Your task to perform on an android device: Clear the shopping cart on newegg. Search for asus rog on newegg, select the first entry, and add it to the cart. Image 0: 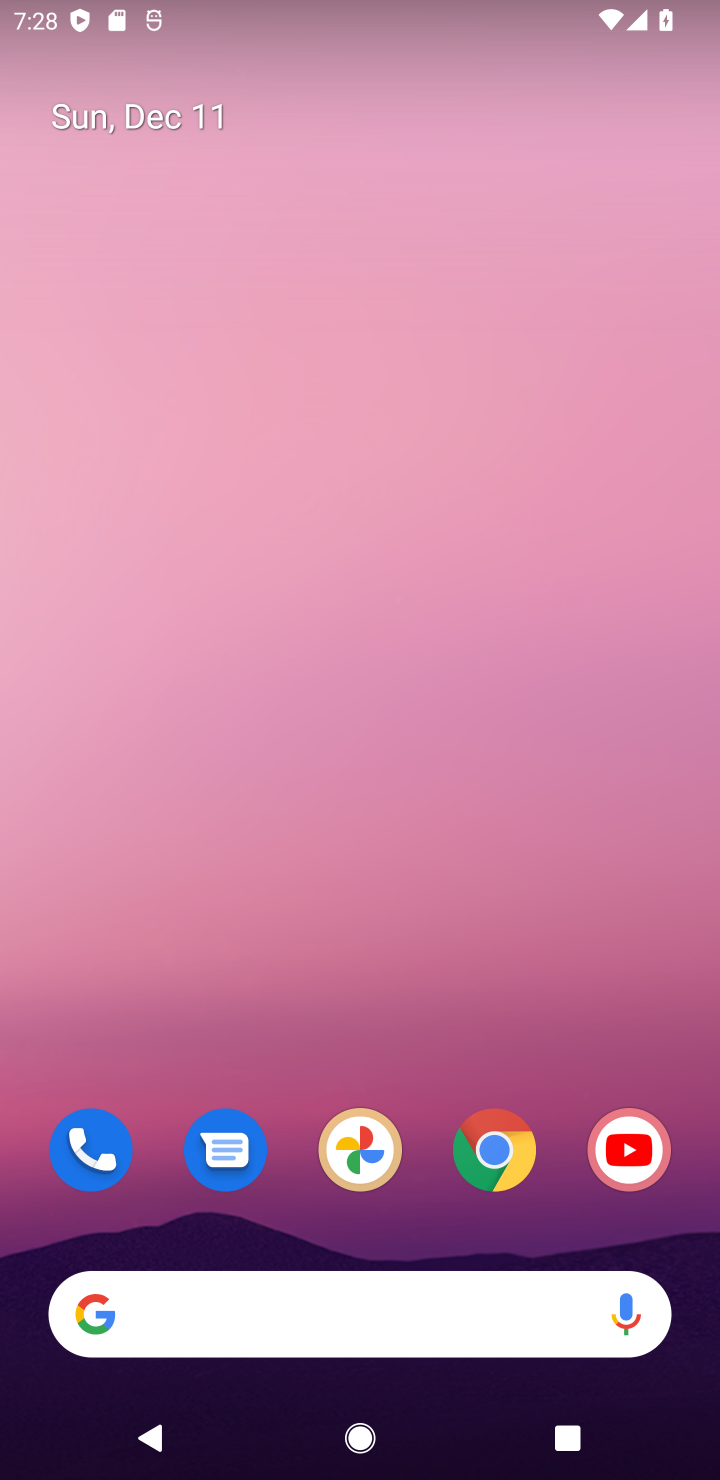
Step 0: click (492, 1146)
Your task to perform on an android device: Clear the shopping cart on newegg. Search for asus rog on newegg, select the first entry, and add it to the cart. Image 1: 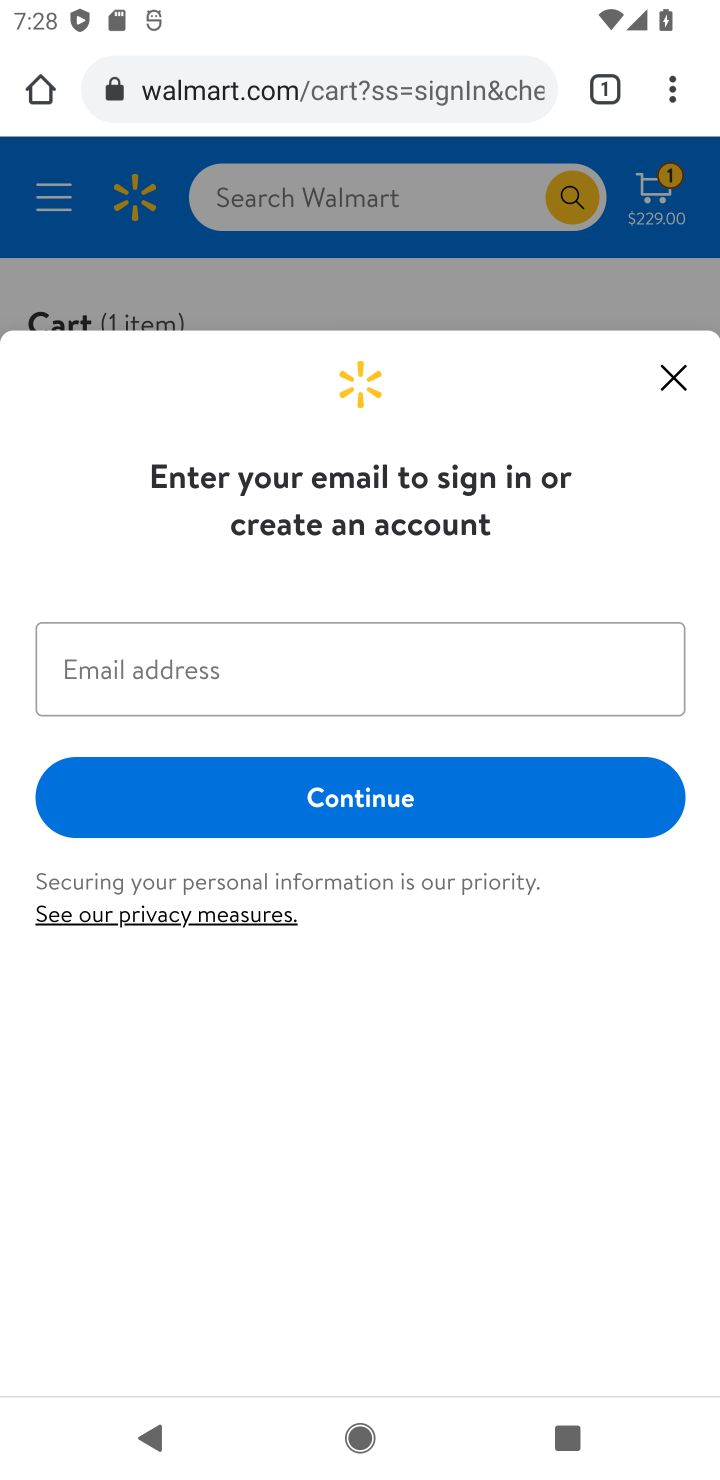
Step 1: click (427, 91)
Your task to perform on an android device: Clear the shopping cart on newegg. Search for asus rog on newegg, select the first entry, and add it to the cart. Image 2: 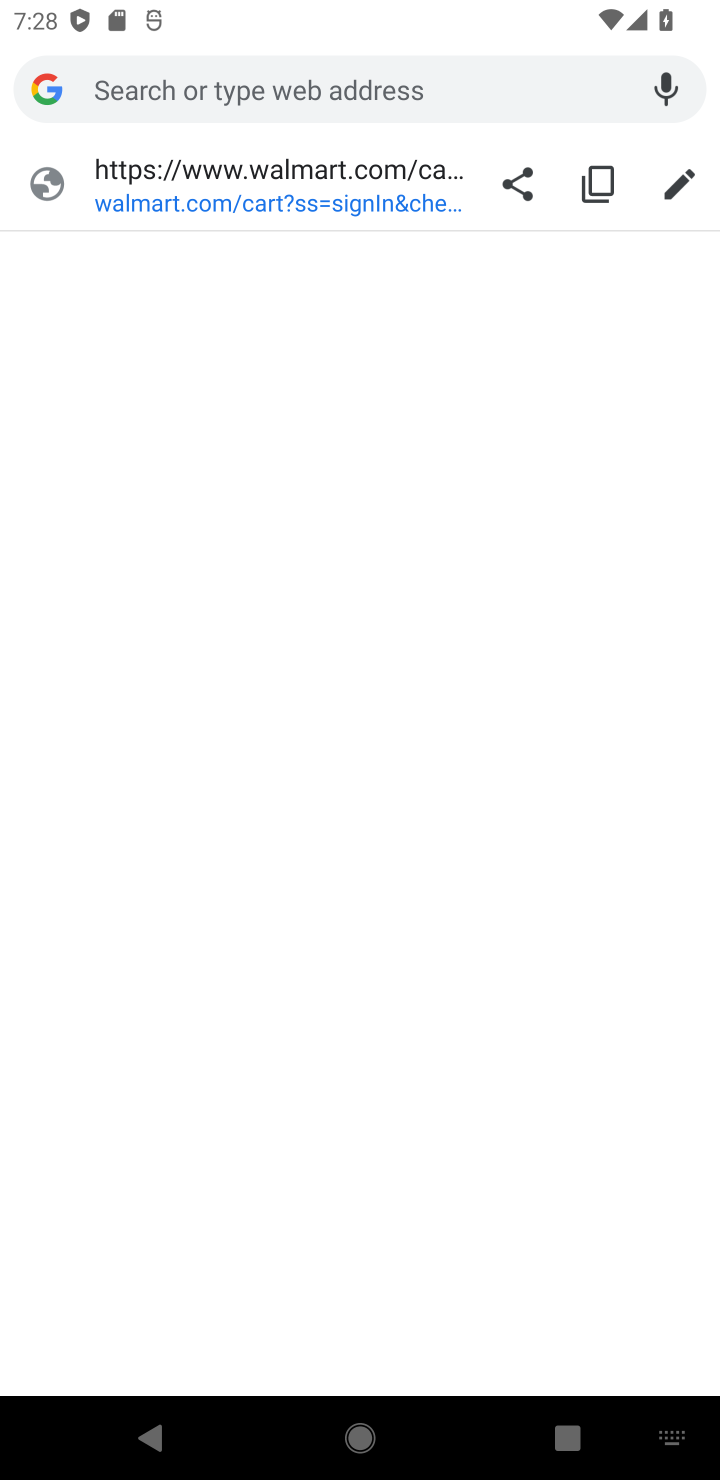
Step 2: type "newegg"
Your task to perform on an android device: Clear the shopping cart on newegg. Search for asus rog on newegg, select the first entry, and add it to the cart. Image 3: 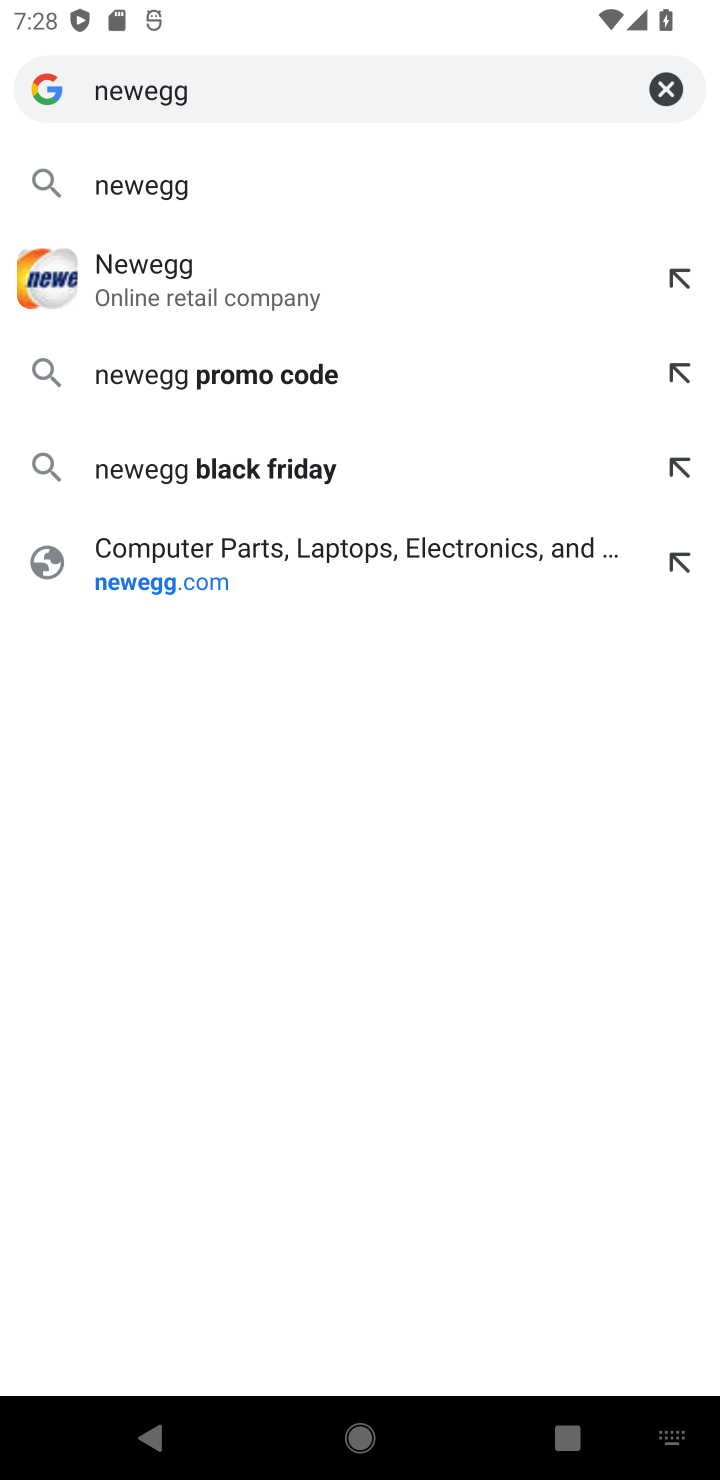
Step 3: click (162, 193)
Your task to perform on an android device: Clear the shopping cart on newegg. Search for asus rog on newegg, select the first entry, and add it to the cart. Image 4: 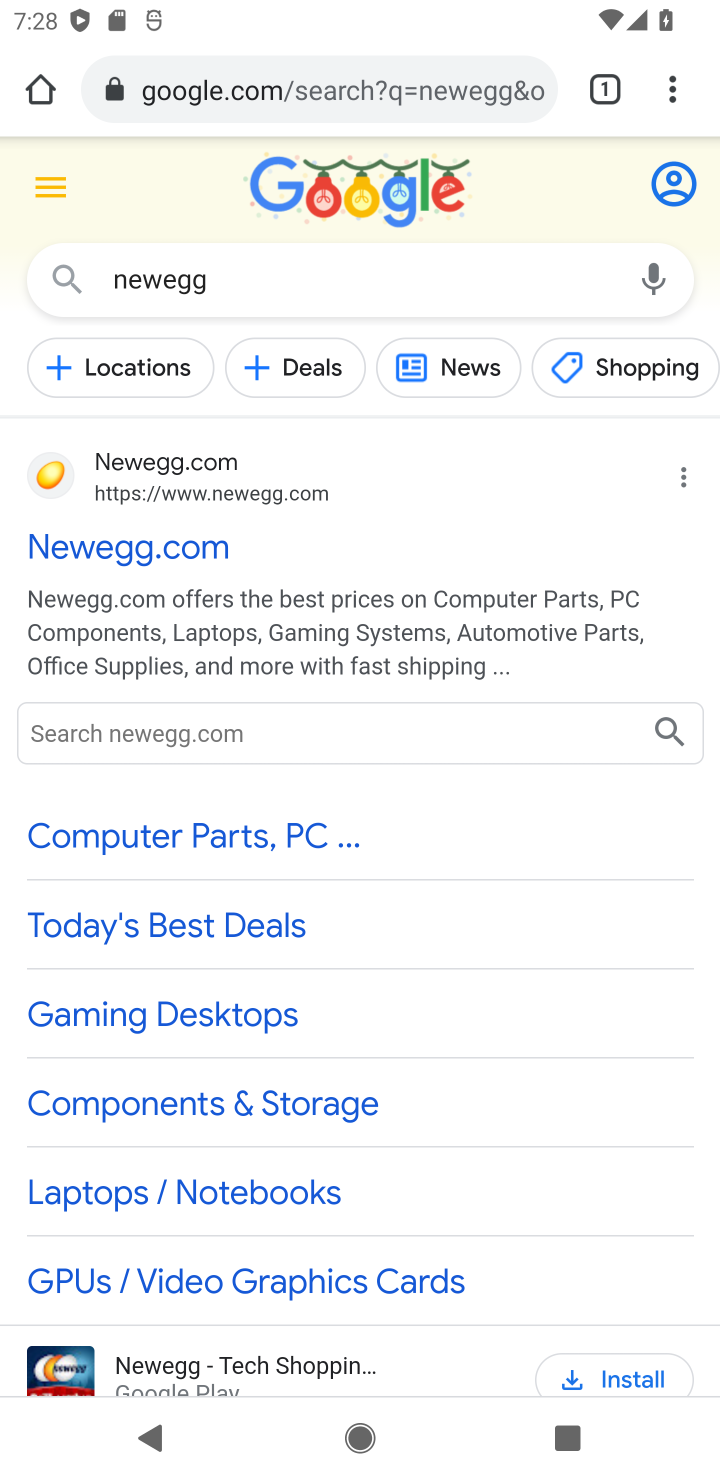
Step 4: click (207, 561)
Your task to perform on an android device: Clear the shopping cart on newegg. Search for asus rog on newegg, select the first entry, and add it to the cart. Image 5: 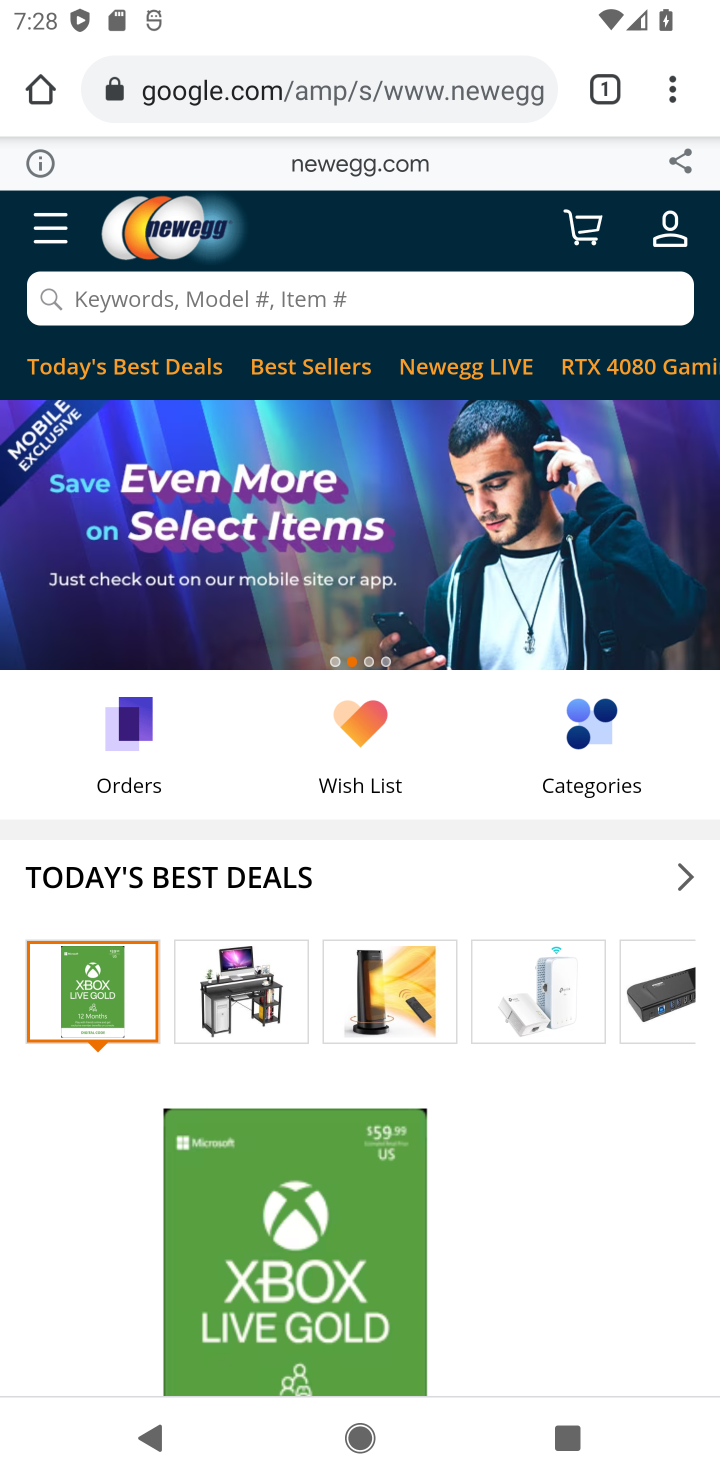
Step 5: click (592, 233)
Your task to perform on an android device: Clear the shopping cart on newegg. Search for asus rog on newegg, select the first entry, and add it to the cart. Image 6: 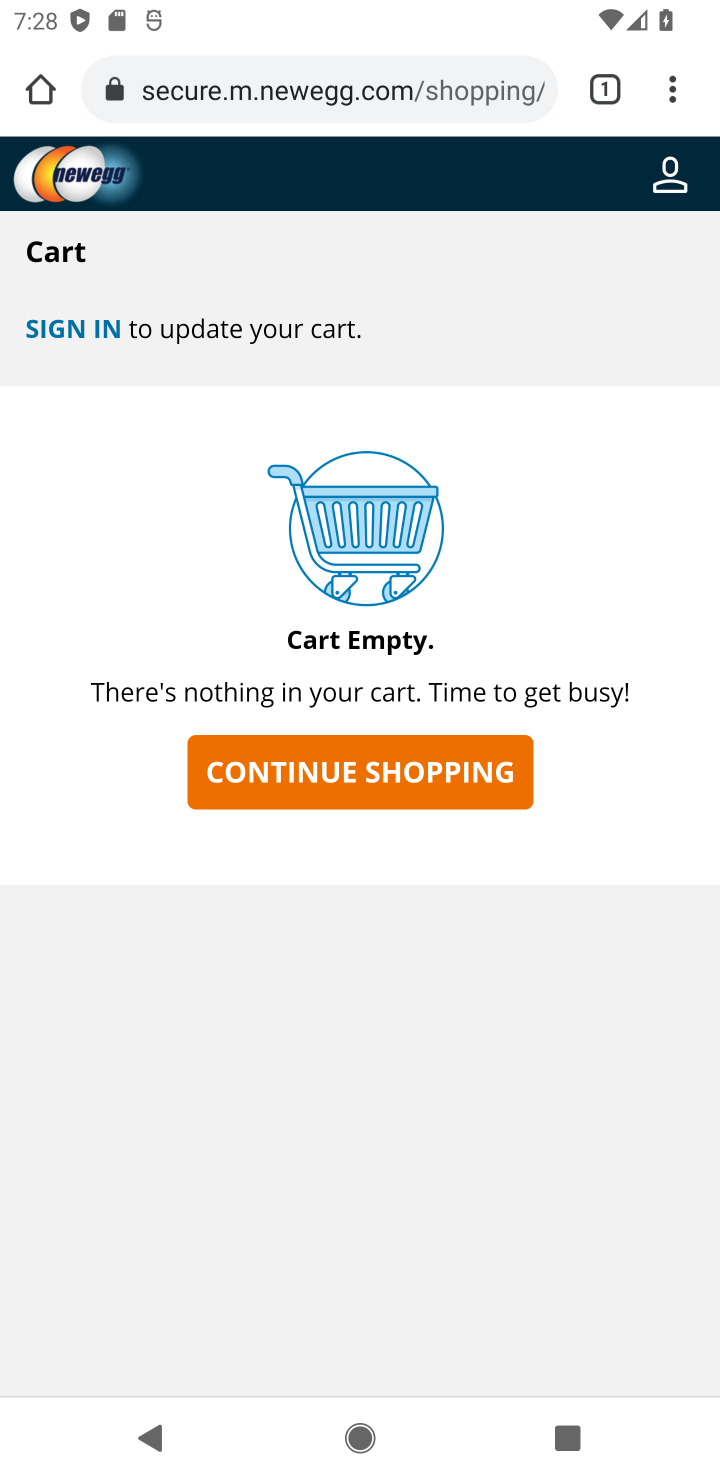
Step 6: click (348, 775)
Your task to perform on an android device: Clear the shopping cart on newegg. Search for asus rog on newegg, select the first entry, and add it to the cart. Image 7: 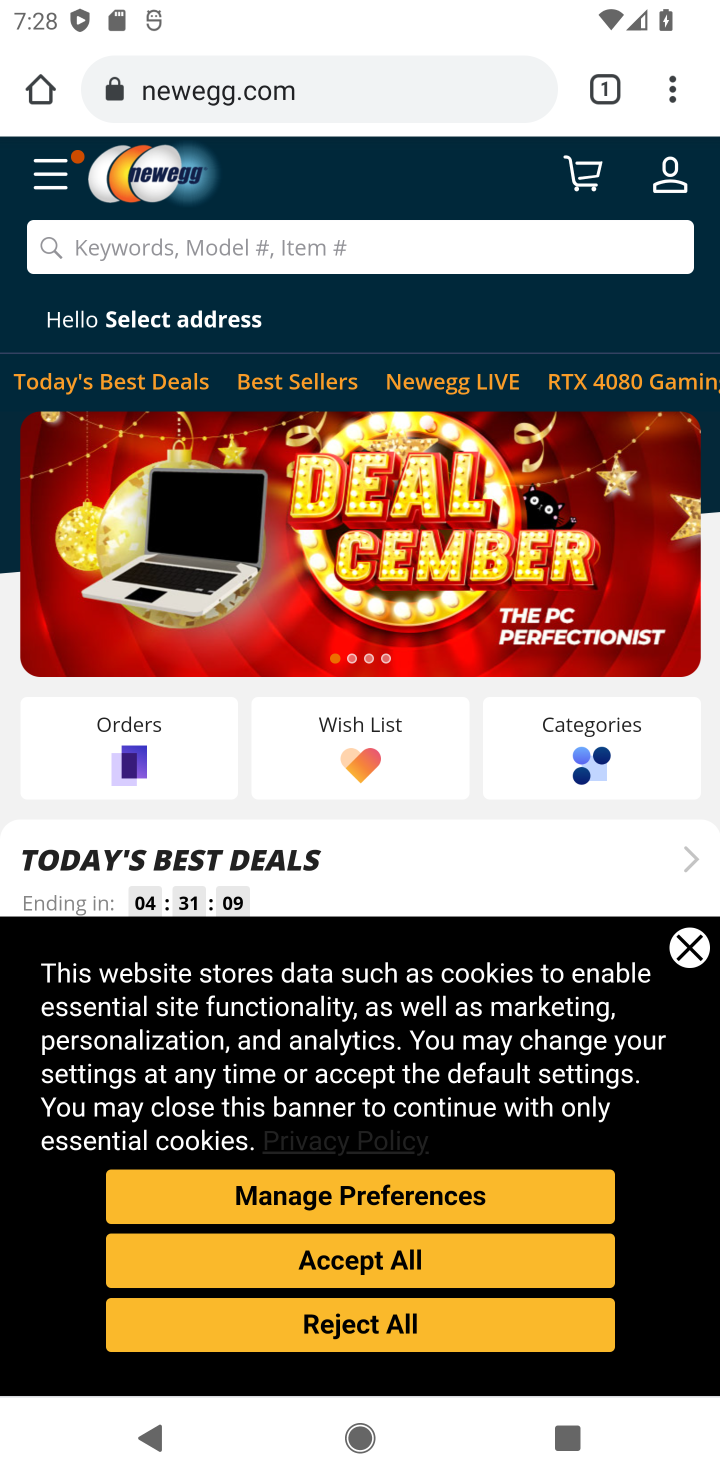
Step 7: click (310, 245)
Your task to perform on an android device: Clear the shopping cart on newegg. Search for asus rog on newegg, select the first entry, and add it to the cart. Image 8: 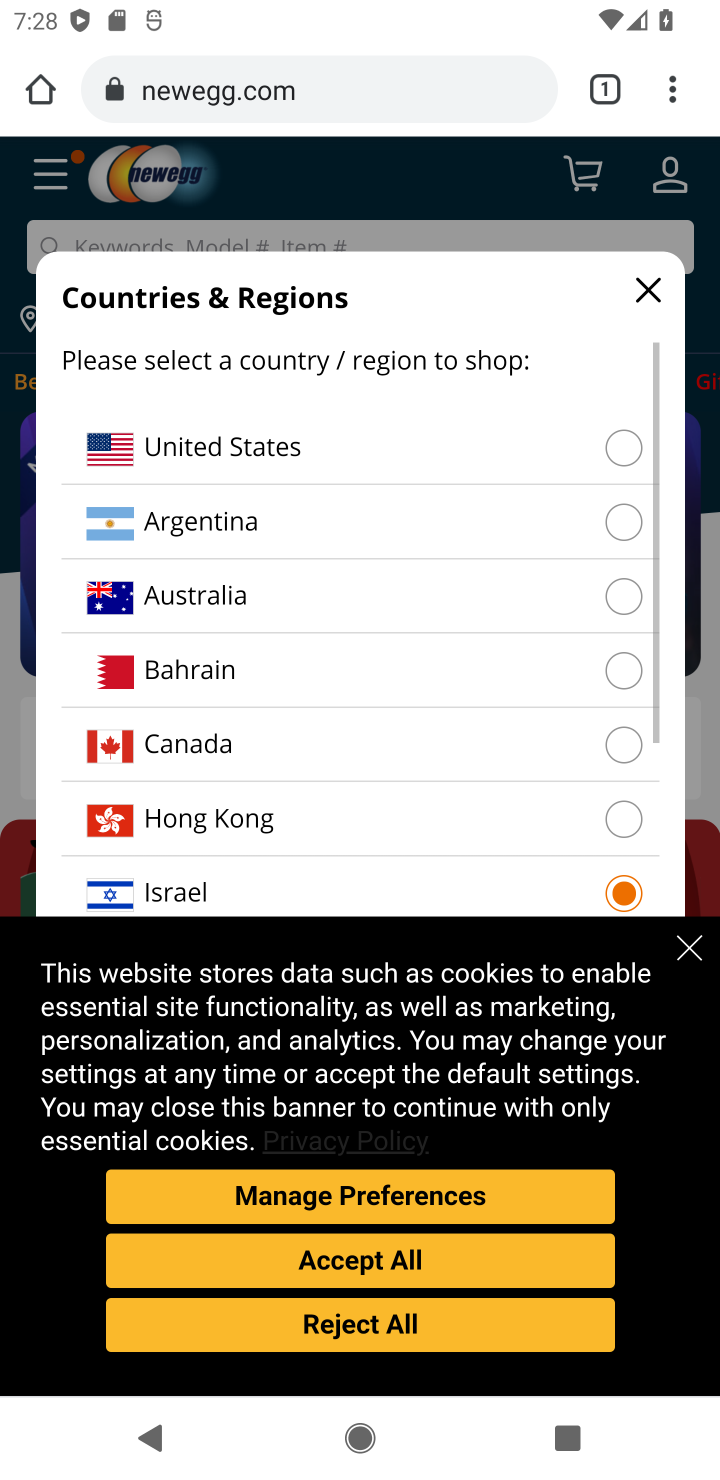
Step 8: click (648, 288)
Your task to perform on an android device: Clear the shopping cart on newegg. Search for asus rog on newegg, select the first entry, and add it to the cart. Image 9: 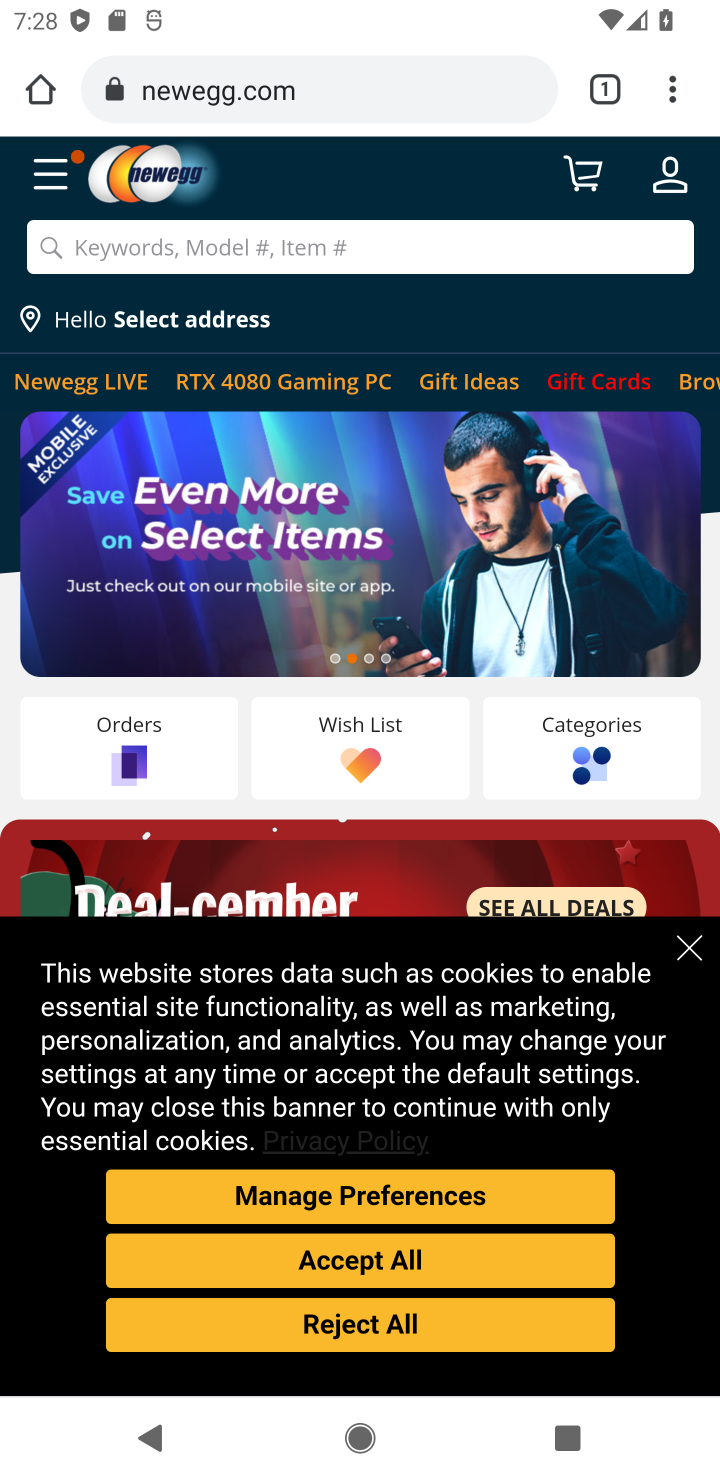
Step 9: click (430, 262)
Your task to perform on an android device: Clear the shopping cart on newegg. Search for asus rog on newegg, select the first entry, and add it to the cart. Image 10: 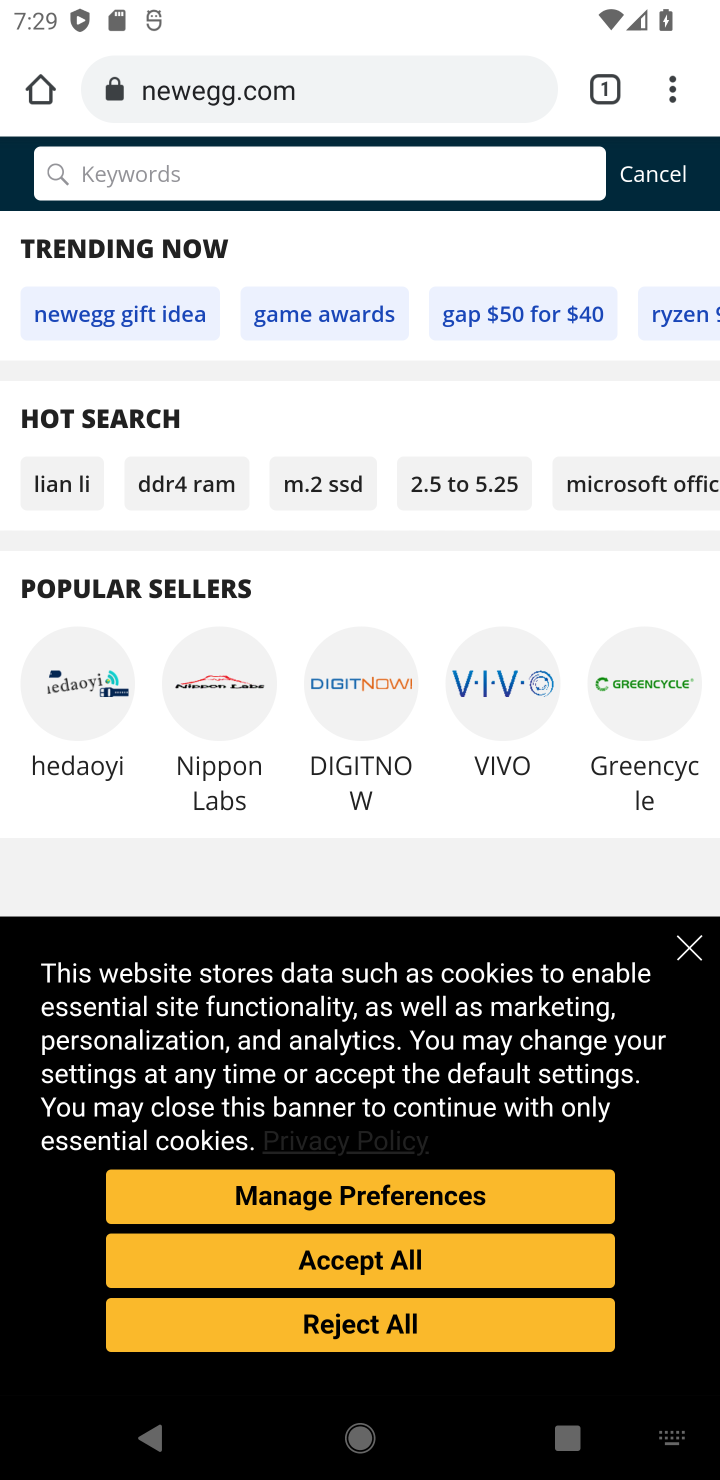
Step 10: type "asus rog"
Your task to perform on an android device: Clear the shopping cart on newegg. Search for asus rog on newegg, select the first entry, and add it to the cart. Image 11: 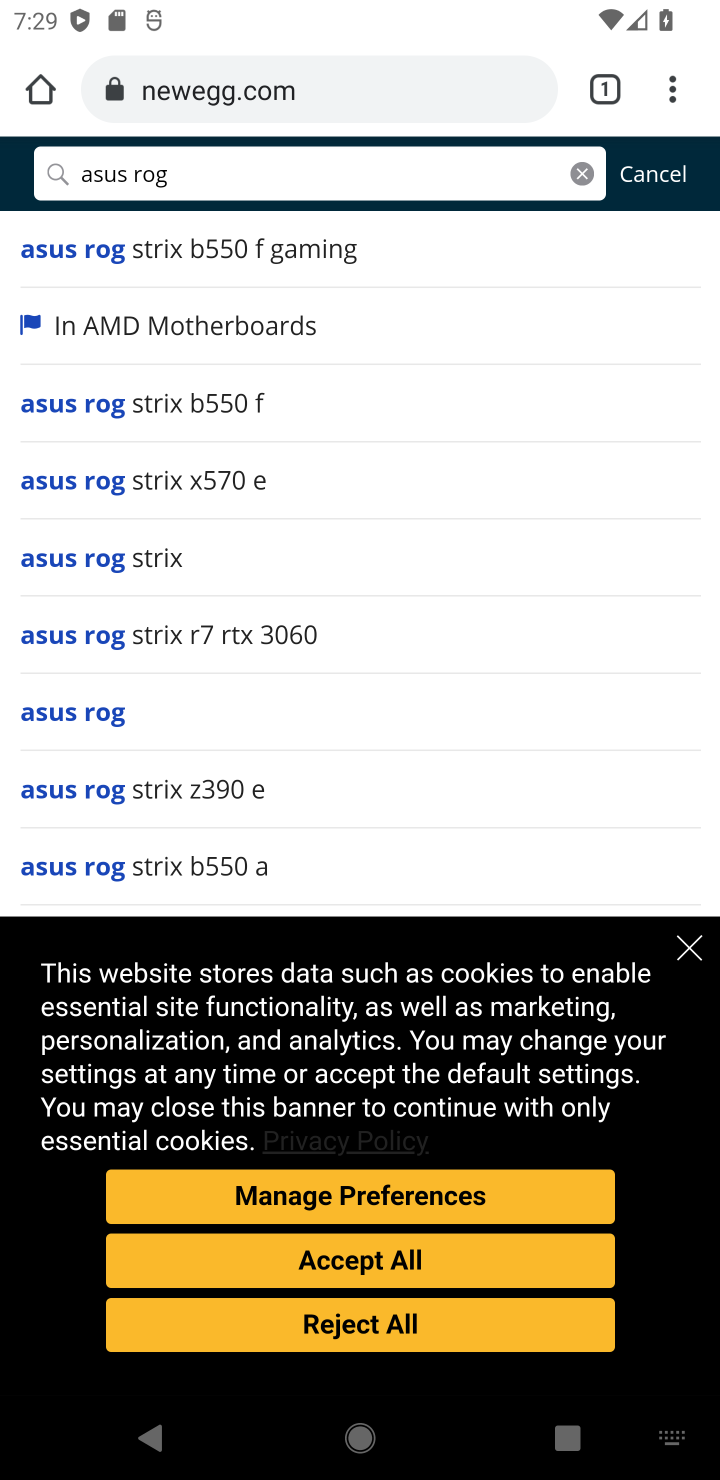
Step 11: click (53, 174)
Your task to perform on an android device: Clear the shopping cart on newegg. Search for asus rog on newegg, select the first entry, and add it to the cart. Image 12: 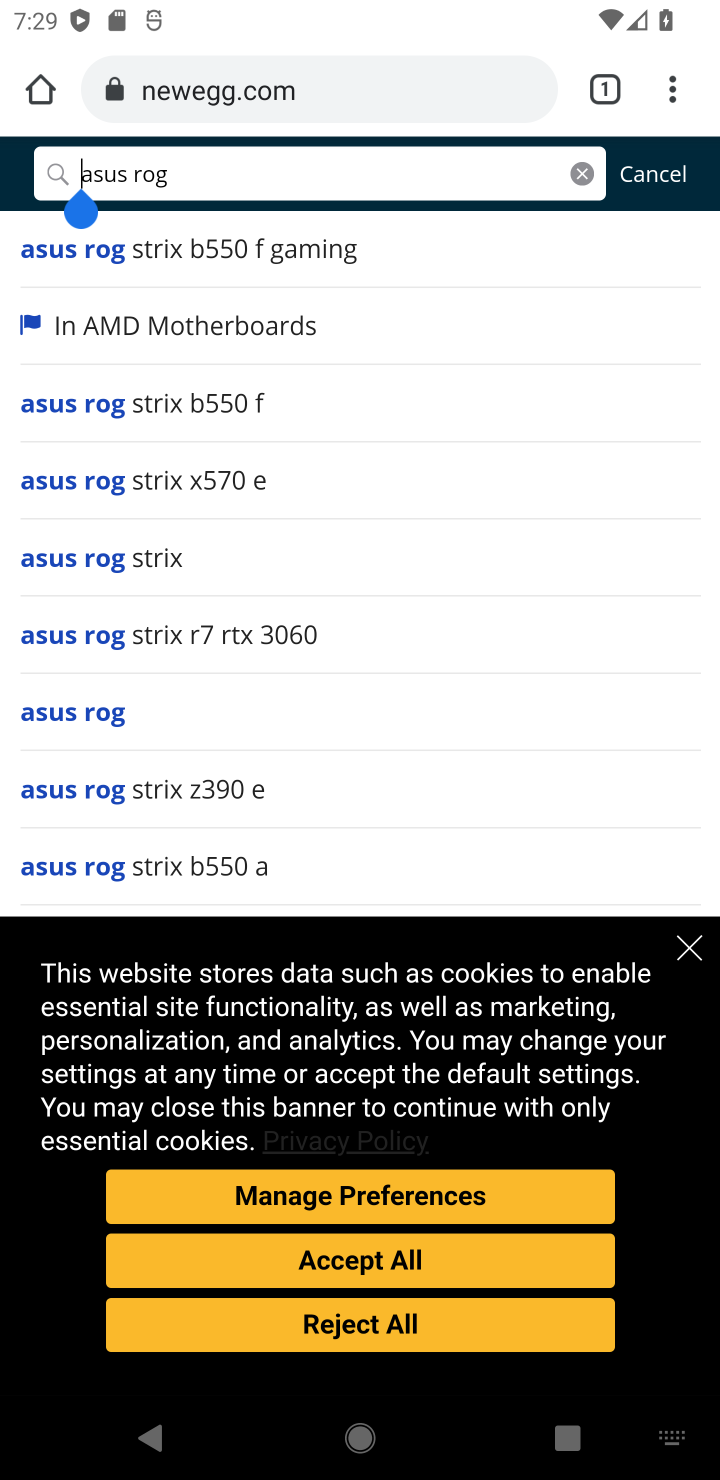
Step 12: click (53, 174)
Your task to perform on an android device: Clear the shopping cart on newegg. Search for asus rog on newegg, select the first entry, and add it to the cart. Image 13: 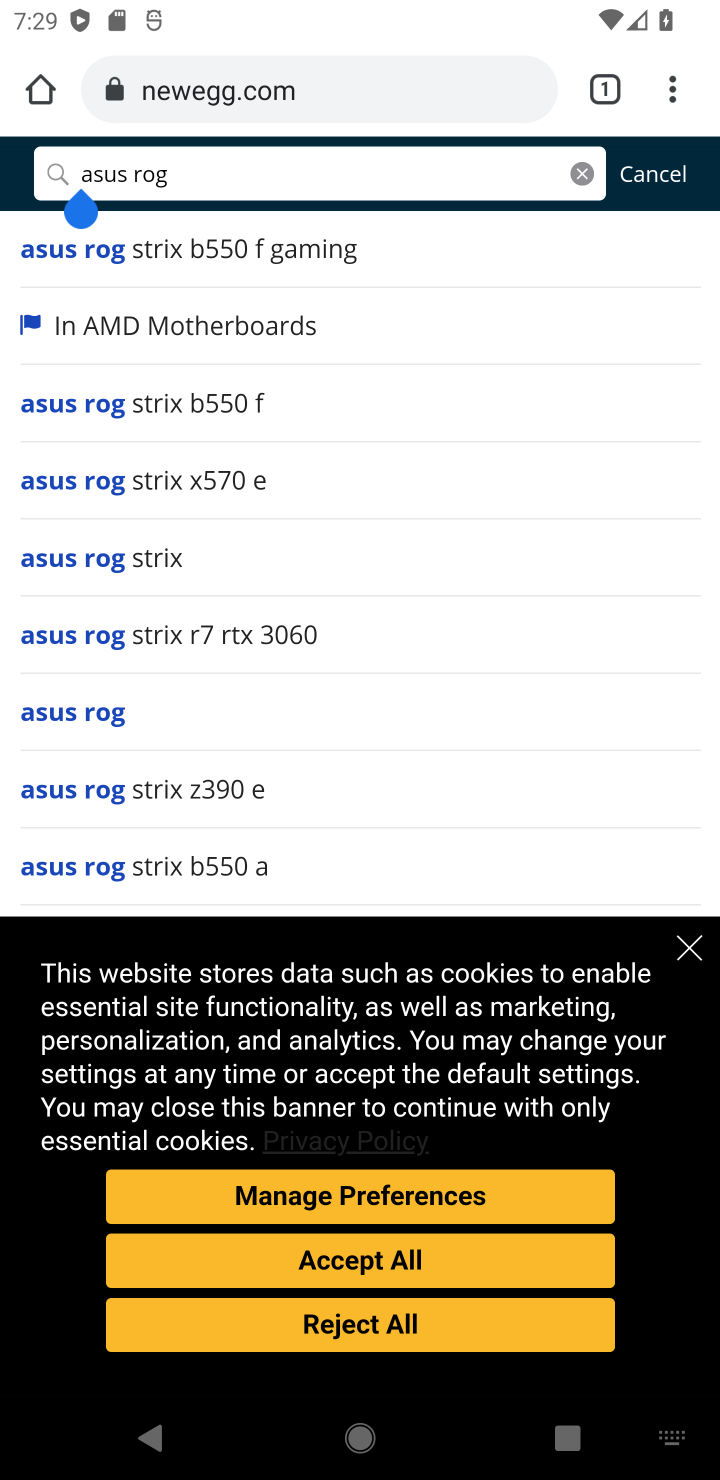
Step 13: click (60, 176)
Your task to perform on an android device: Clear the shopping cart on newegg. Search for asus rog on newegg, select the first entry, and add it to the cart. Image 14: 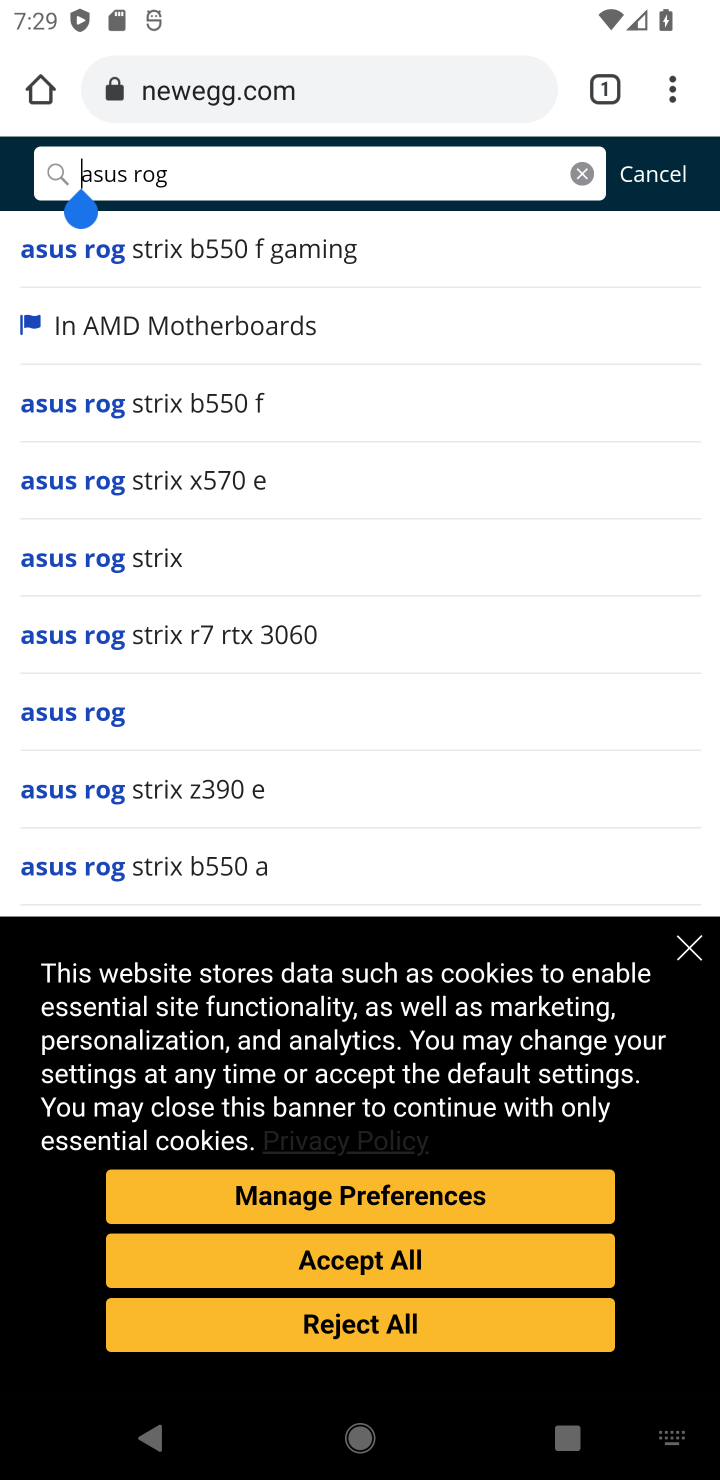
Step 14: click (52, 720)
Your task to perform on an android device: Clear the shopping cart on newegg. Search for asus rog on newegg, select the first entry, and add it to the cart. Image 15: 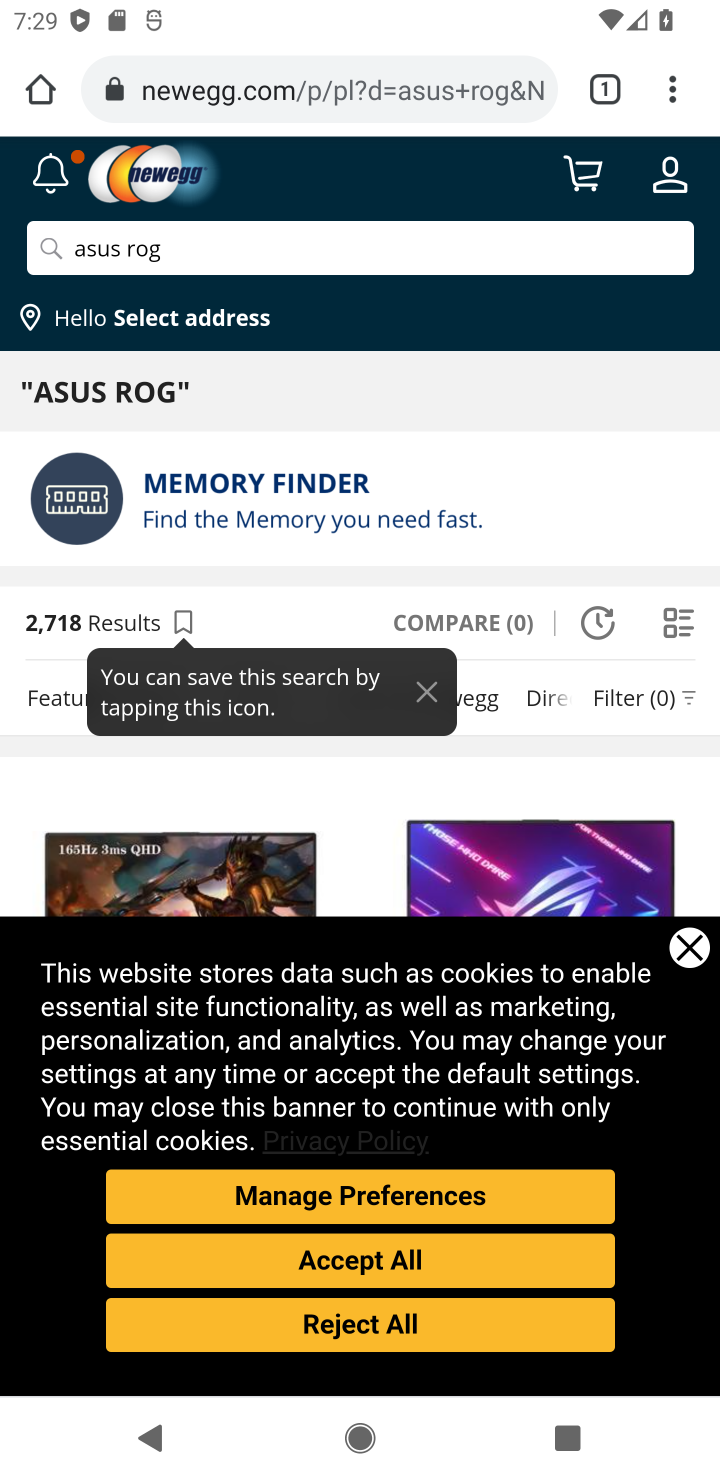
Step 15: click (690, 941)
Your task to perform on an android device: Clear the shopping cart on newegg. Search for asus rog on newegg, select the first entry, and add it to the cart. Image 16: 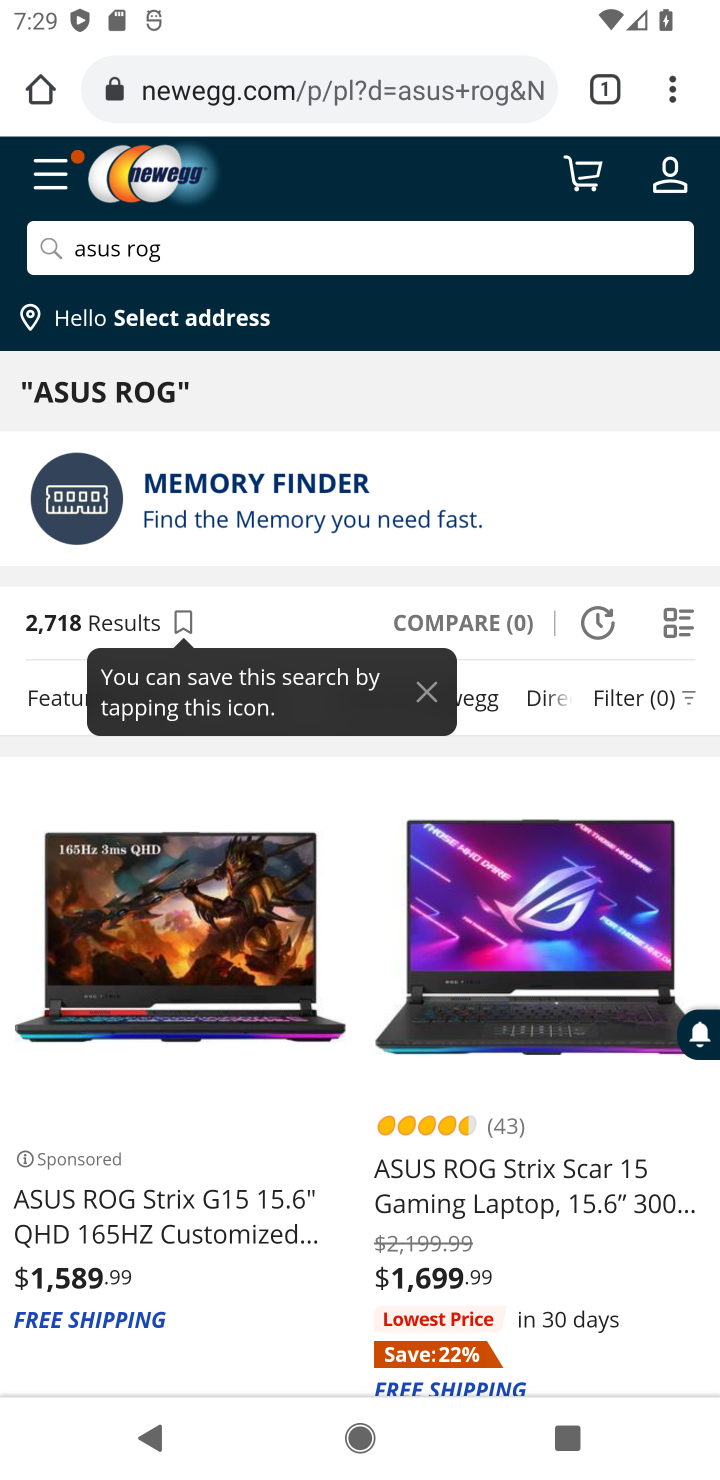
Step 16: drag from (179, 1221) to (260, 845)
Your task to perform on an android device: Clear the shopping cart on newegg. Search for asus rog on newegg, select the first entry, and add it to the cart. Image 17: 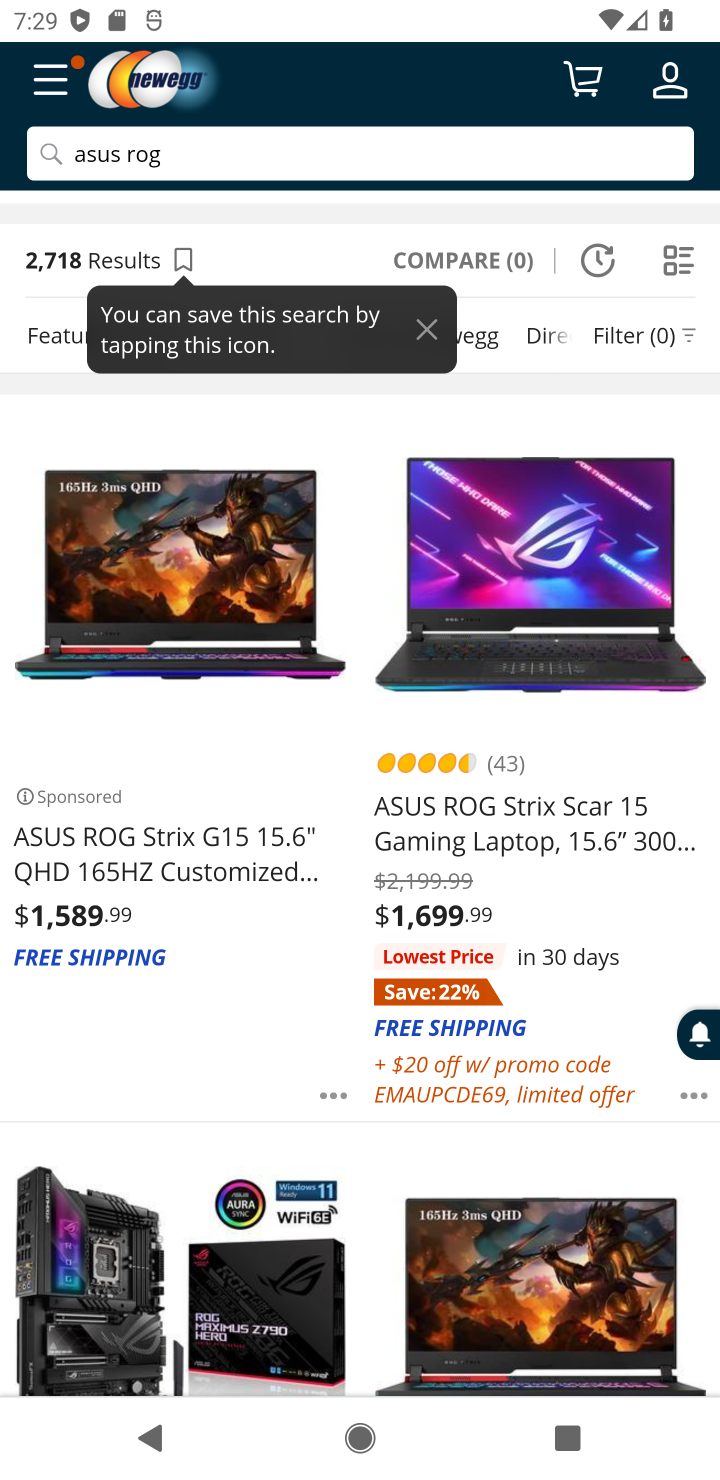
Step 17: click (222, 858)
Your task to perform on an android device: Clear the shopping cart on newegg. Search for asus rog on newegg, select the first entry, and add it to the cart. Image 18: 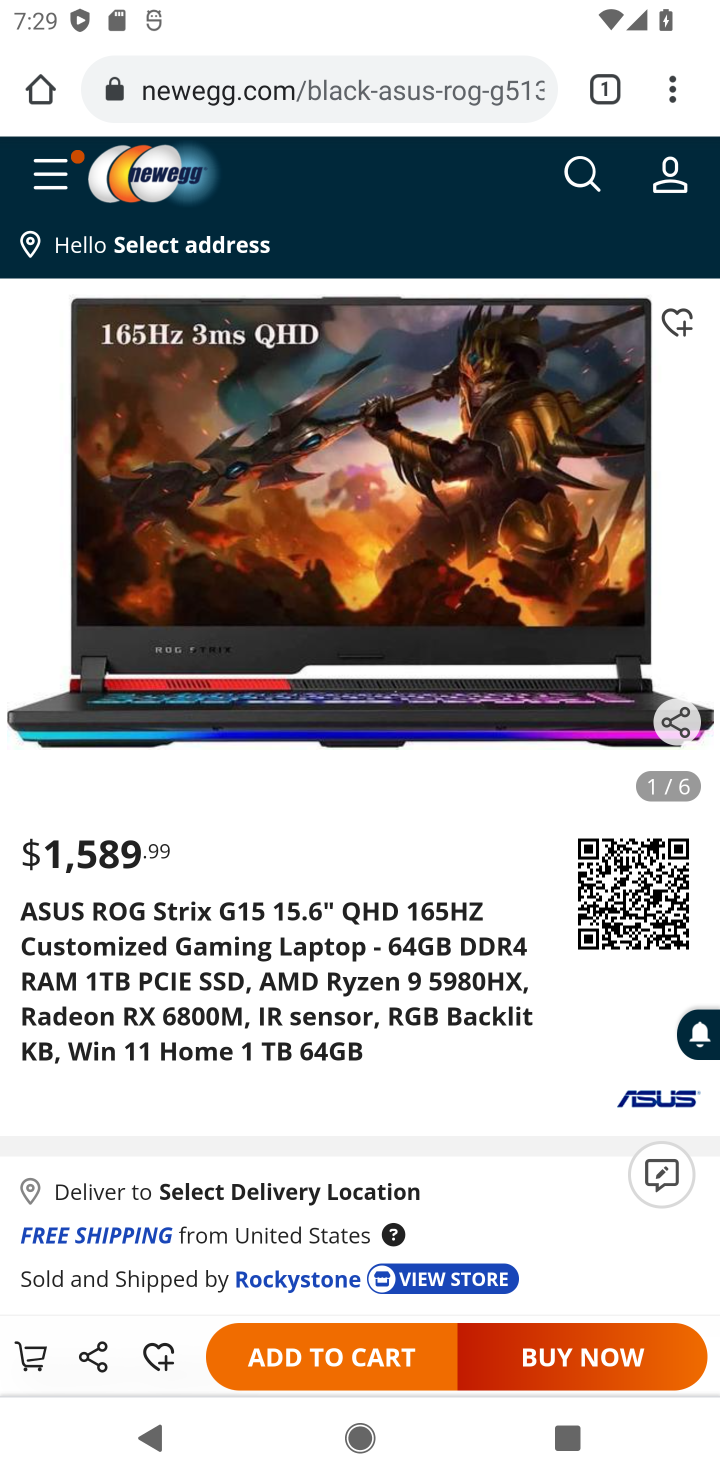
Step 18: click (322, 1354)
Your task to perform on an android device: Clear the shopping cart on newegg. Search for asus rog on newegg, select the first entry, and add it to the cart. Image 19: 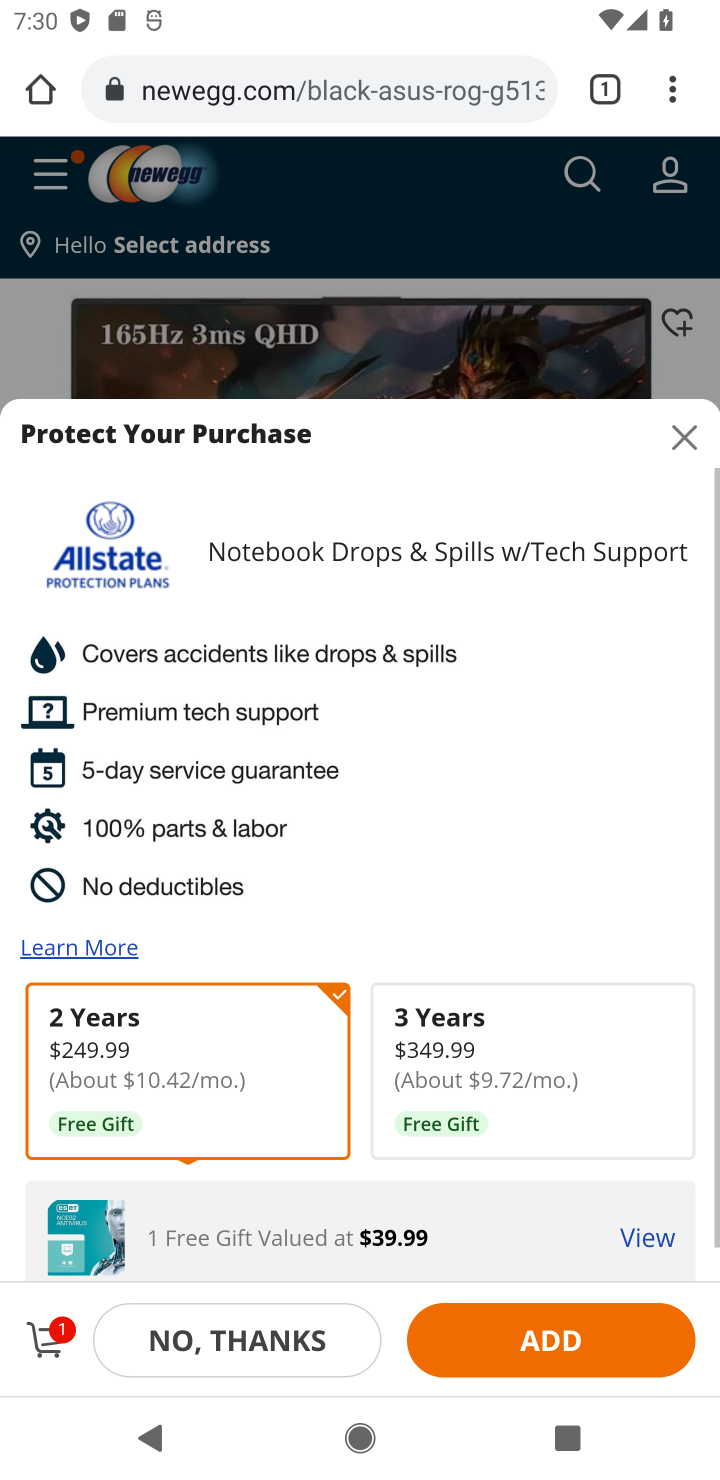
Step 19: click (44, 1344)
Your task to perform on an android device: Clear the shopping cart on newegg. Search for asus rog on newegg, select the first entry, and add it to the cart. Image 20: 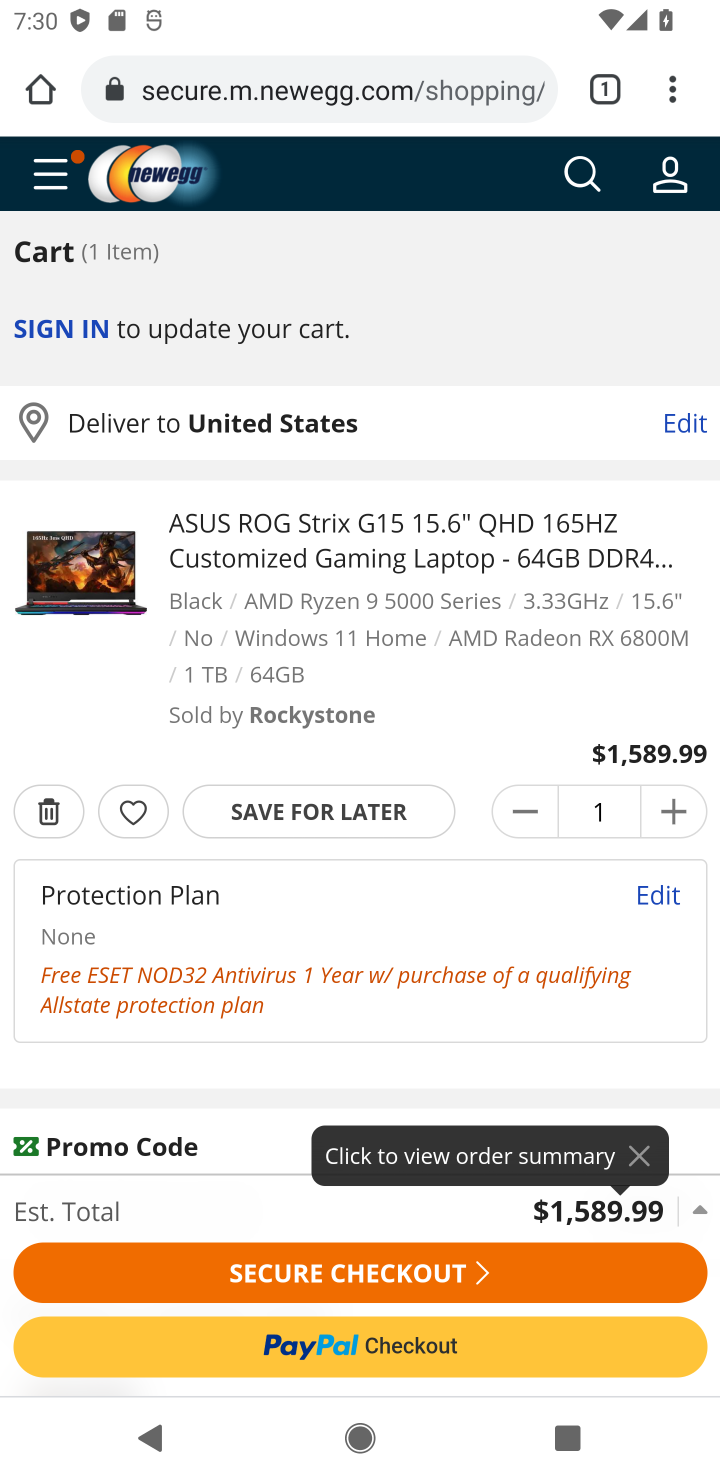
Step 20: task complete